Your task to perform on an android device: Open sound settings Image 0: 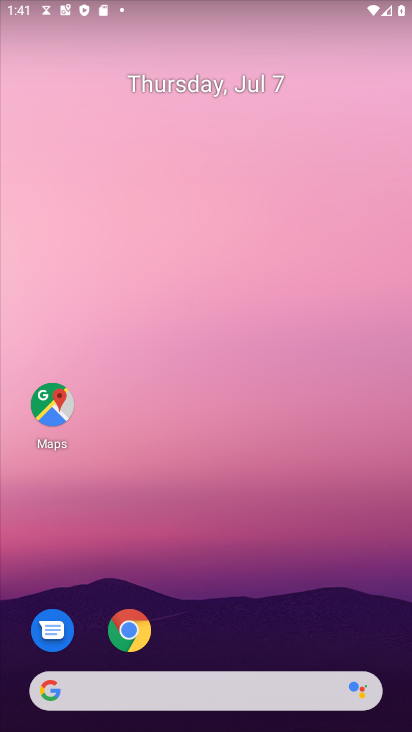
Step 0: drag from (306, 619) to (200, 13)
Your task to perform on an android device: Open sound settings Image 1: 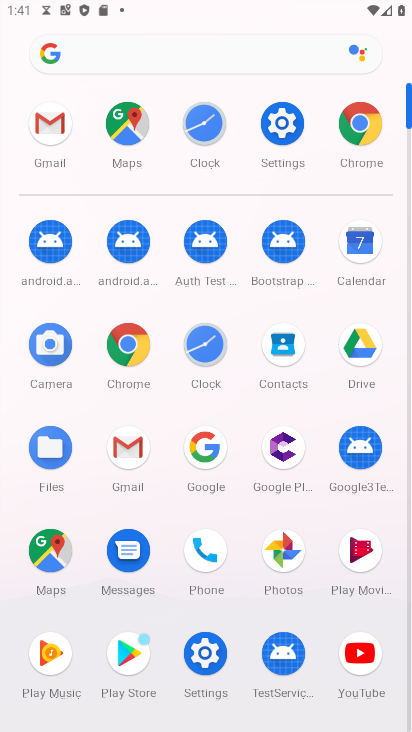
Step 1: click (284, 131)
Your task to perform on an android device: Open sound settings Image 2: 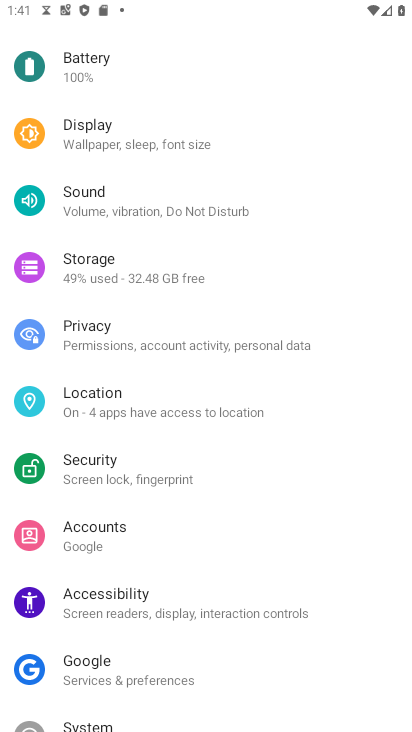
Step 2: click (179, 215)
Your task to perform on an android device: Open sound settings Image 3: 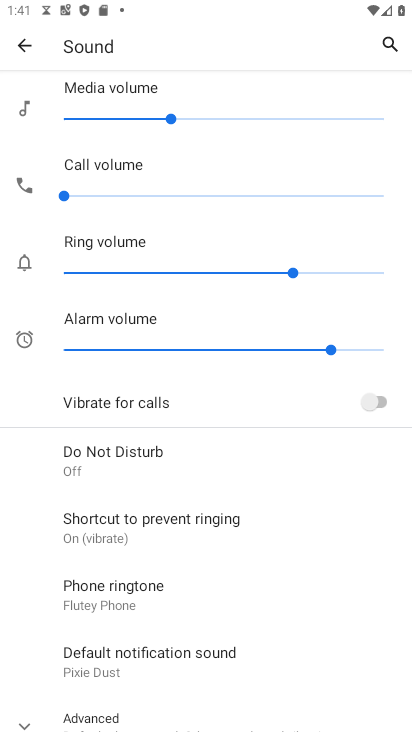
Step 3: task complete